Your task to perform on an android device: Open Chrome and go to settings Image 0: 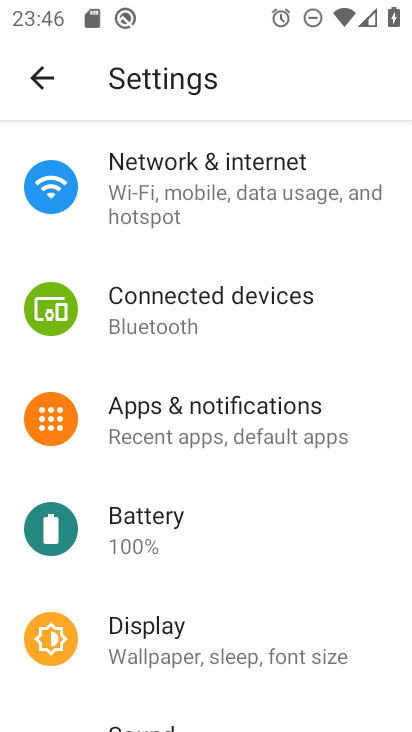
Step 0: press home button
Your task to perform on an android device: Open Chrome and go to settings Image 1: 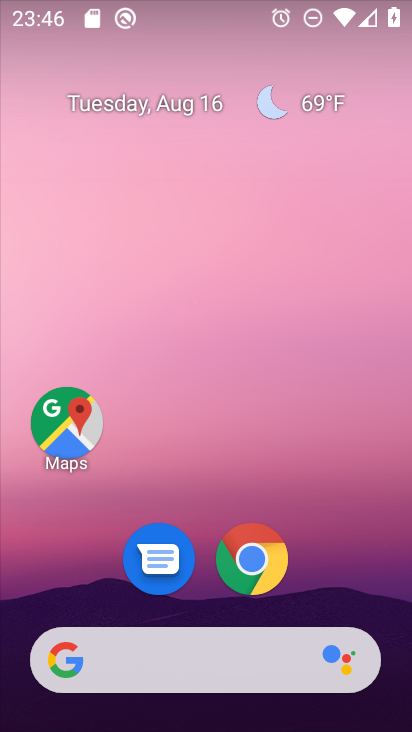
Step 1: click (257, 561)
Your task to perform on an android device: Open Chrome and go to settings Image 2: 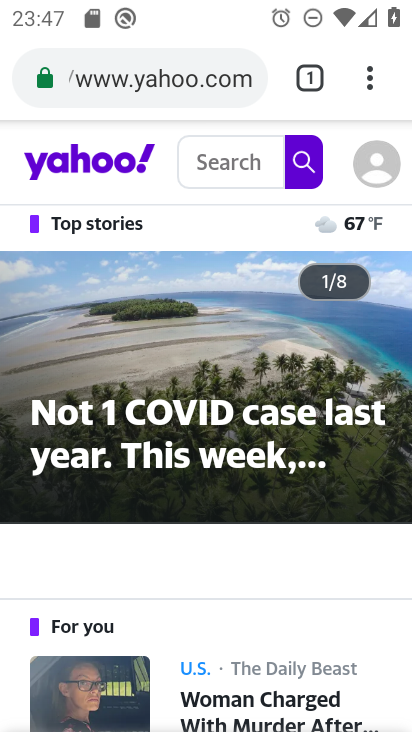
Step 2: click (384, 85)
Your task to perform on an android device: Open Chrome and go to settings Image 3: 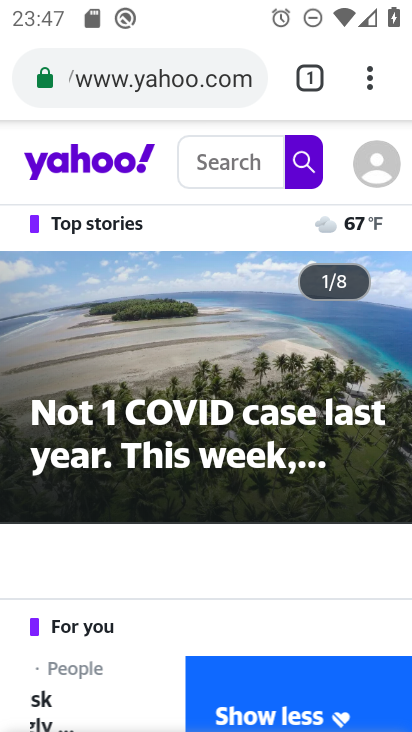
Step 3: click (394, 79)
Your task to perform on an android device: Open Chrome and go to settings Image 4: 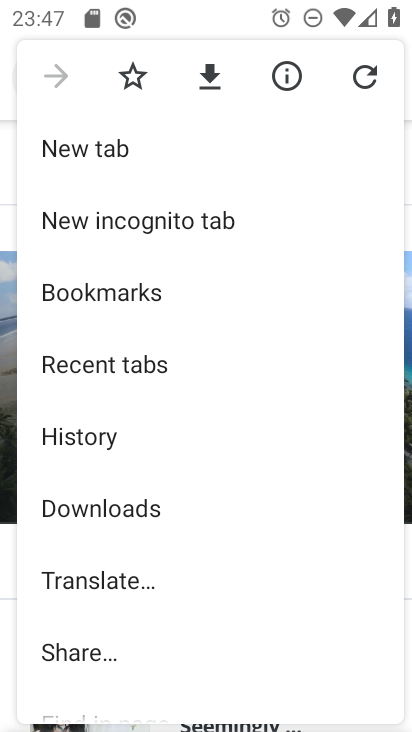
Step 4: drag from (146, 609) to (225, 439)
Your task to perform on an android device: Open Chrome and go to settings Image 5: 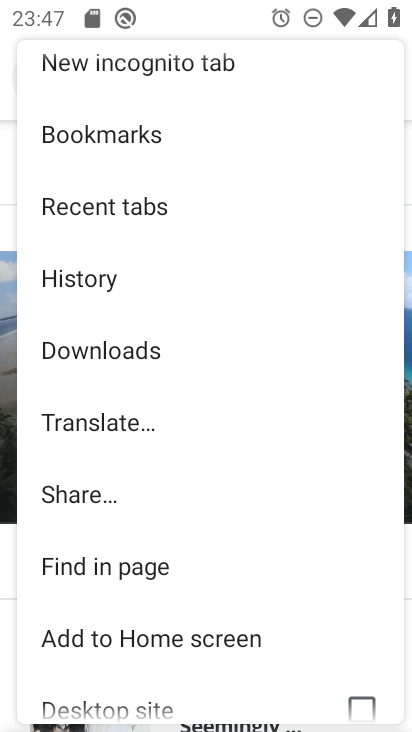
Step 5: drag from (205, 598) to (305, 470)
Your task to perform on an android device: Open Chrome and go to settings Image 6: 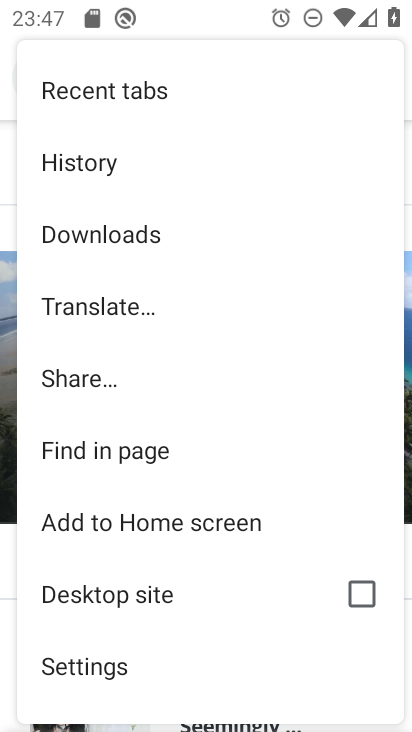
Step 6: click (105, 668)
Your task to perform on an android device: Open Chrome and go to settings Image 7: 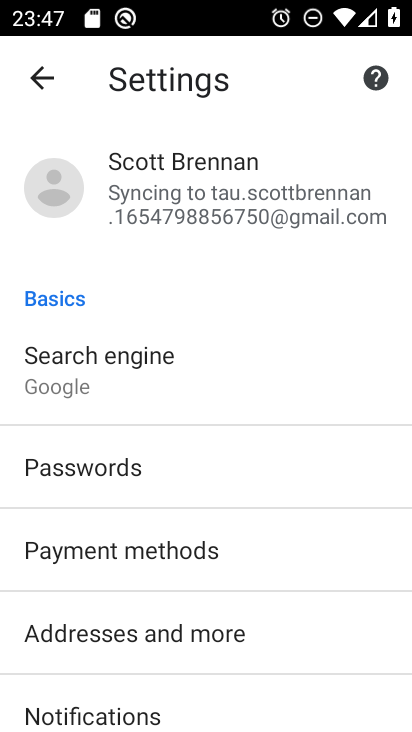
Step 7: task complete